Your task to perform on an android device: Add "macbook pro" to the cart on amazon.com, then select checkout. Image 0: 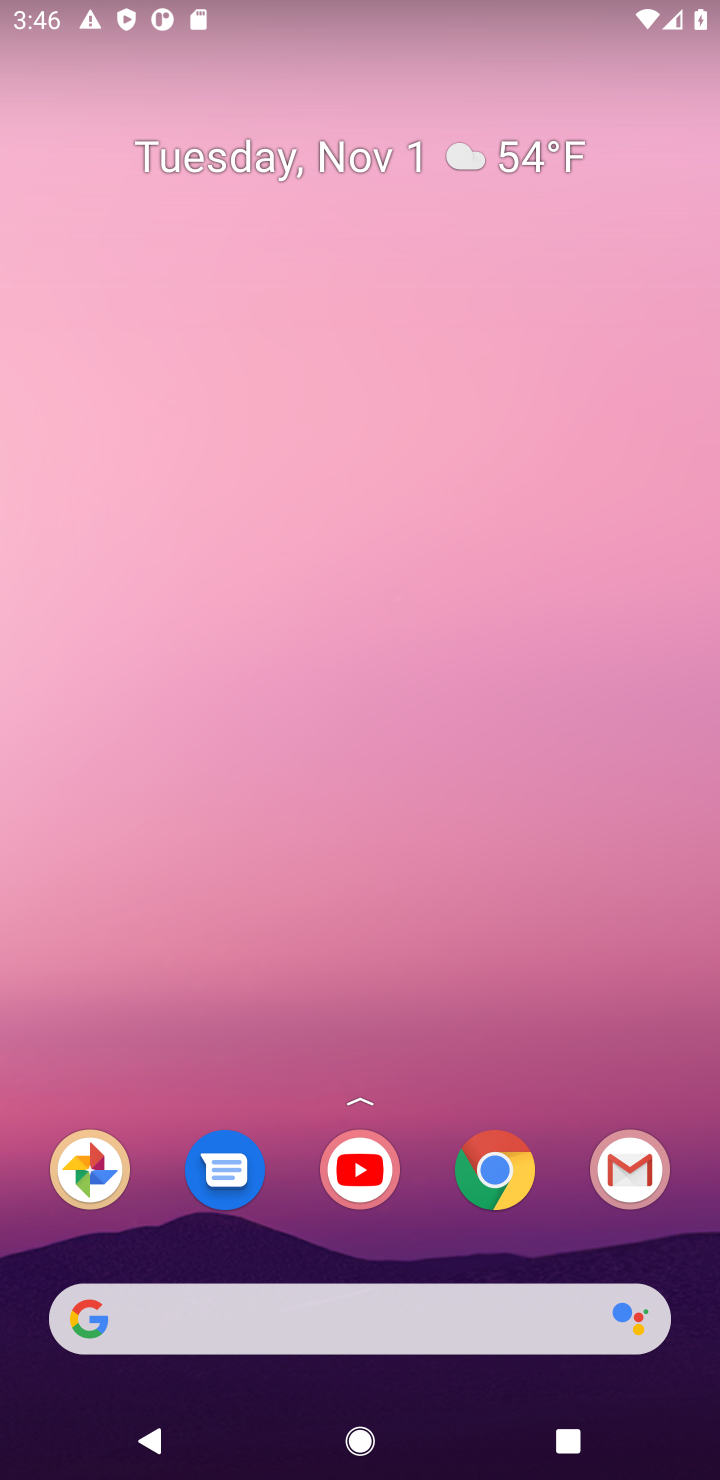
Step 0: drag from (424, 1172) to (303, 111)
Your task to perform on an android device: Add "macbook pro" to the cart on amazon.com, then select checkout. Image 1: 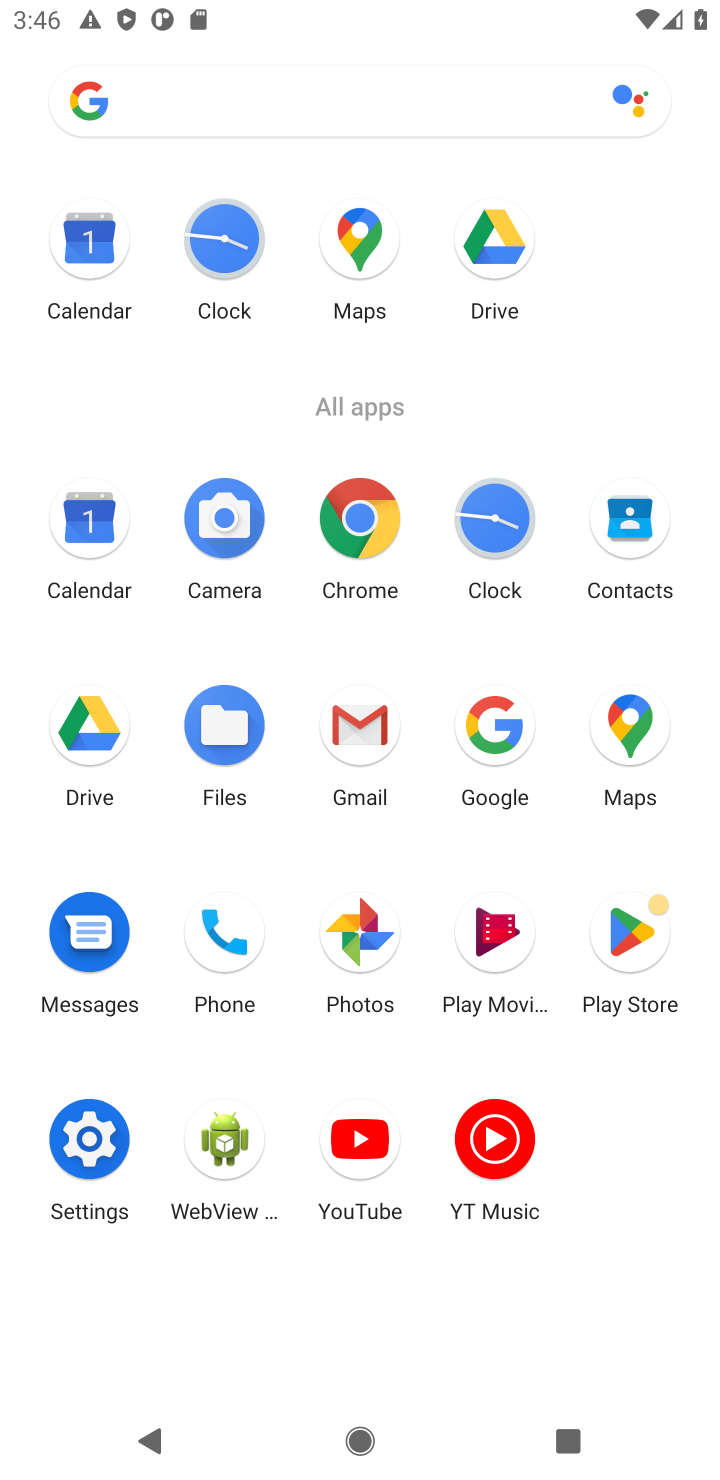
Step 1: click (361, 508)
Your task to perform on an android device: Add "macbook pro" to the cart on amazon.com, then select checkout. Image 2: 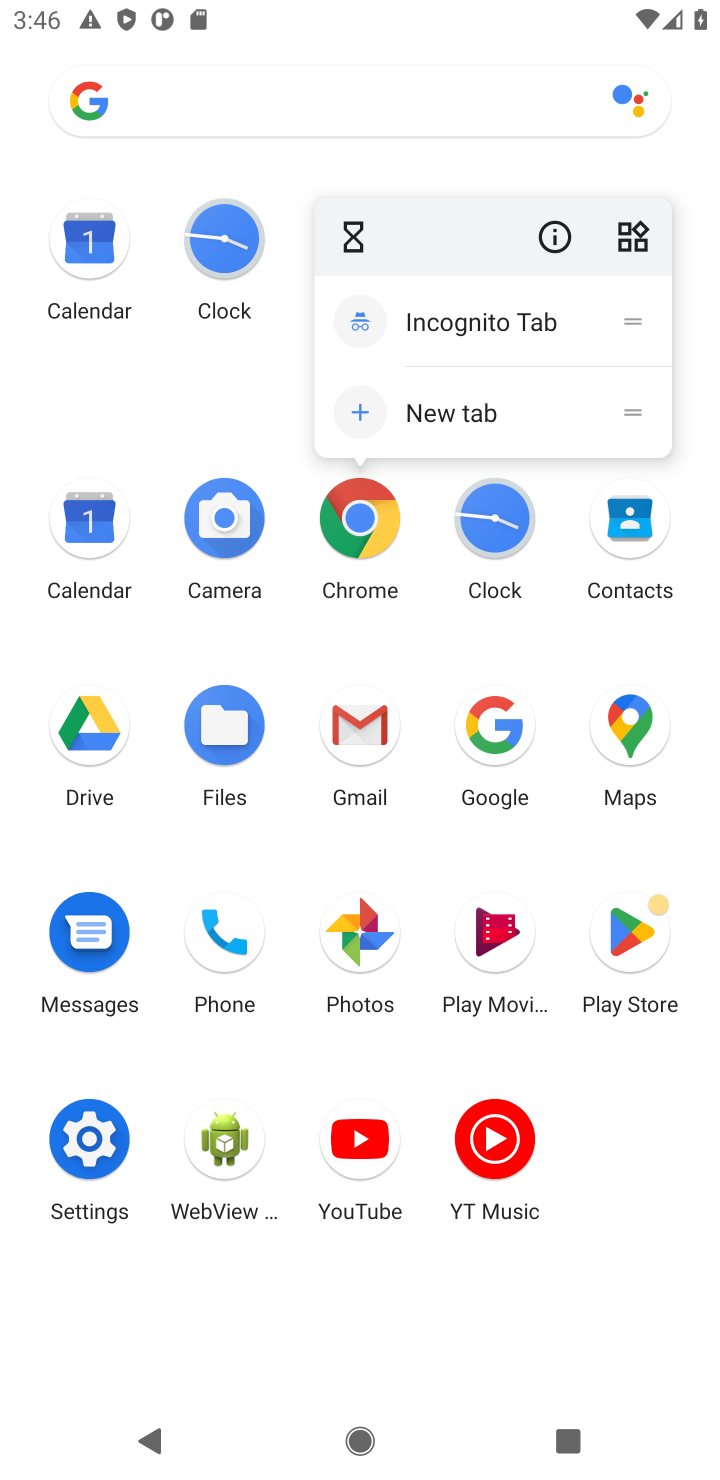
Step 2: click (359, 521)
Your task to perform on an android device: Add "macbook pro" to the cart on amazon.com, then select checkout. Image 3: 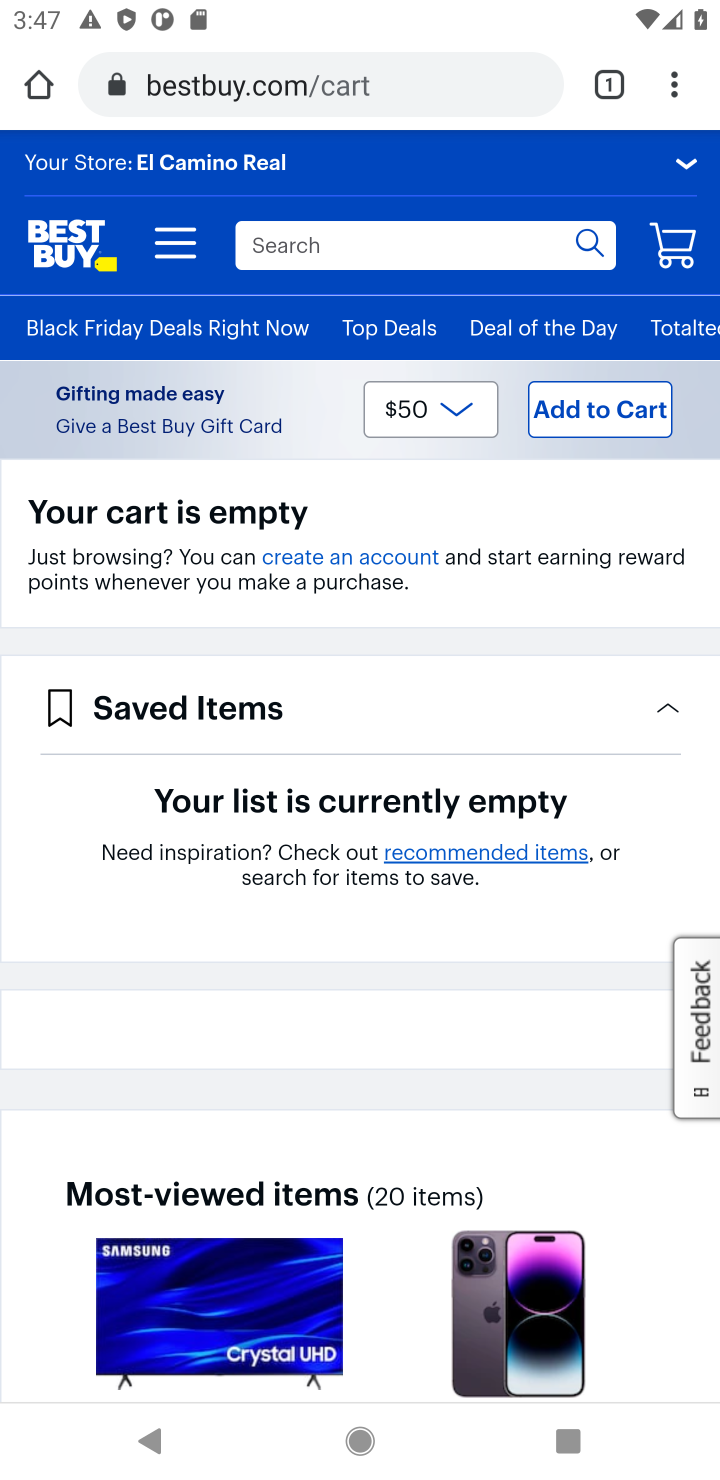
Step 3: click (368, 83)
Your task to perform on an android device: Add "macbook pro" to the cart on amazon.com, then select checkout. Image 4: 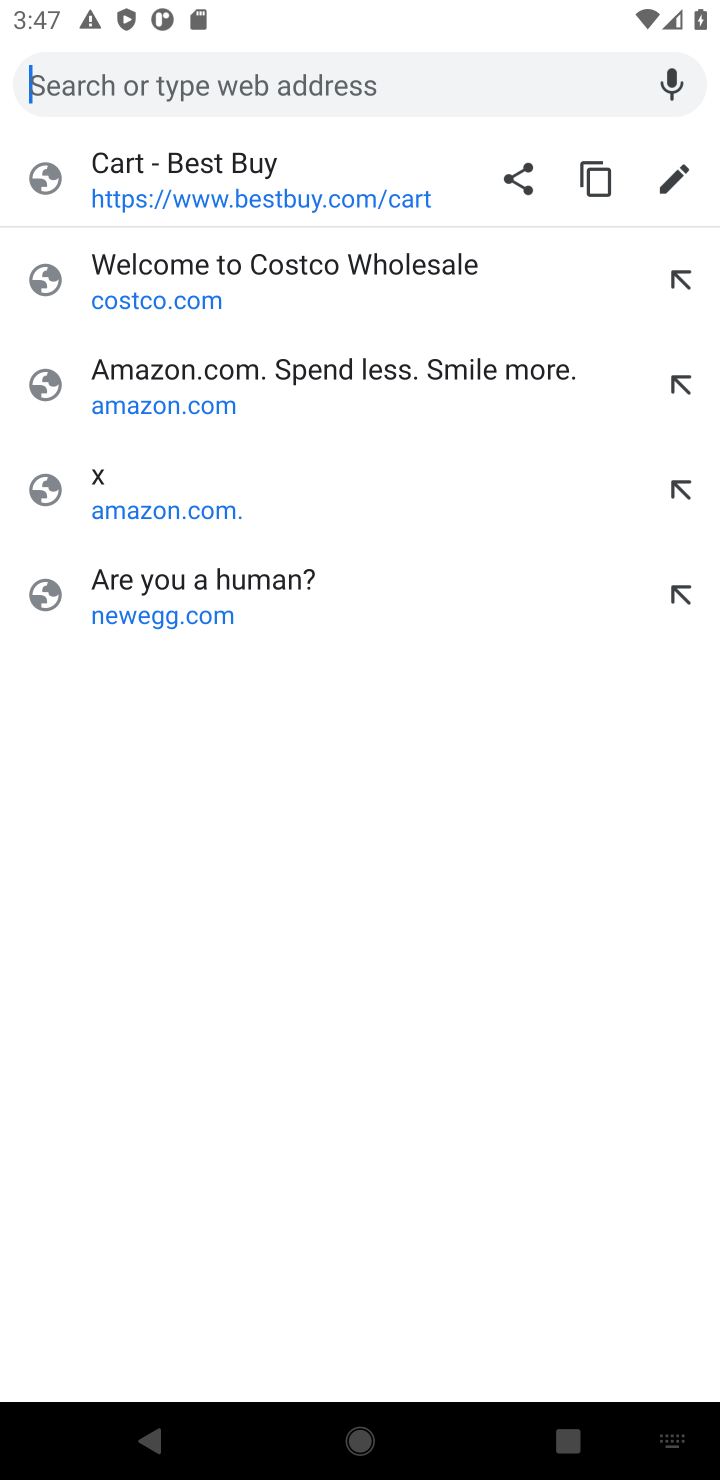
Step 4: type "amazon.com"
Your task to perform on an android device: Add "macbook pro" to the cart on amazon.com, then select checkout. Image 5: 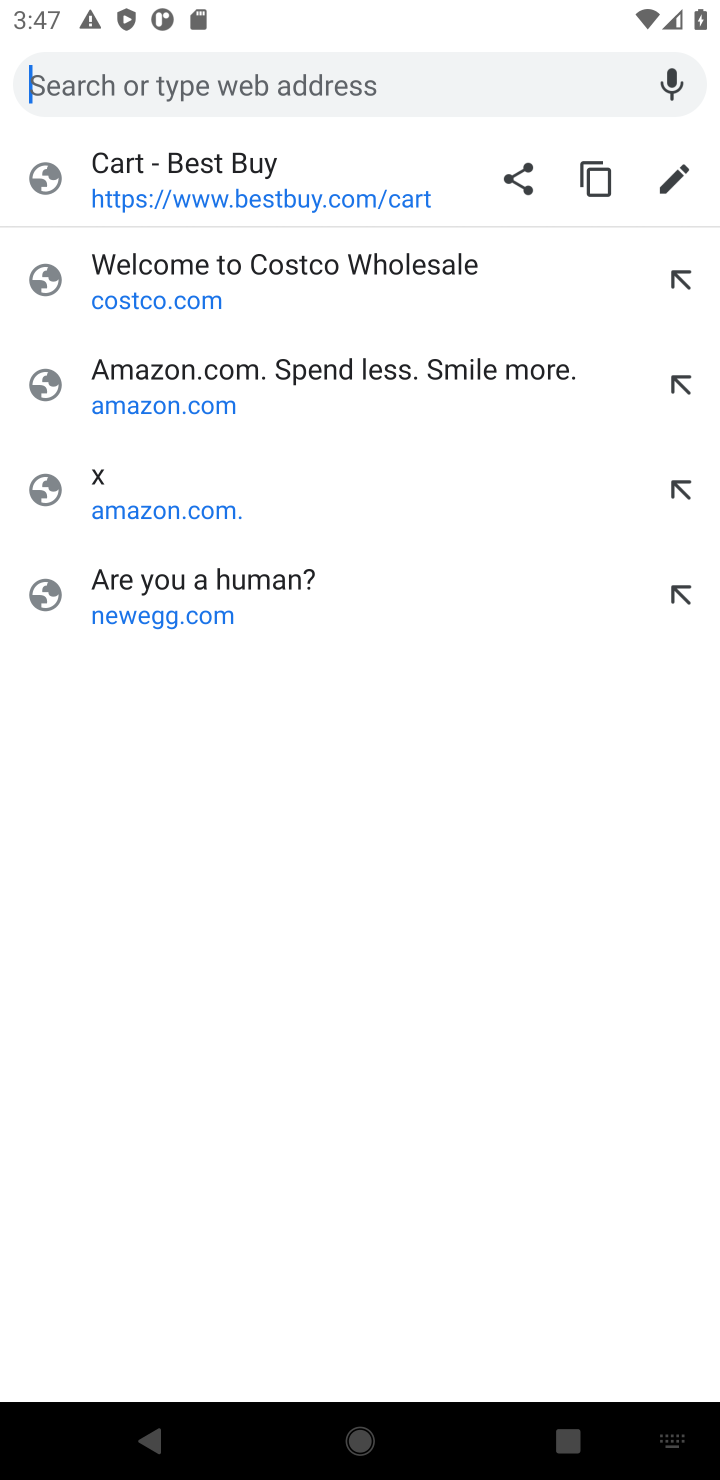
Step 5: click (203, 401)
Your task to perform on an android device: Add "macbook pro" to the cart on amazon.com, then select checkout. Image 6: 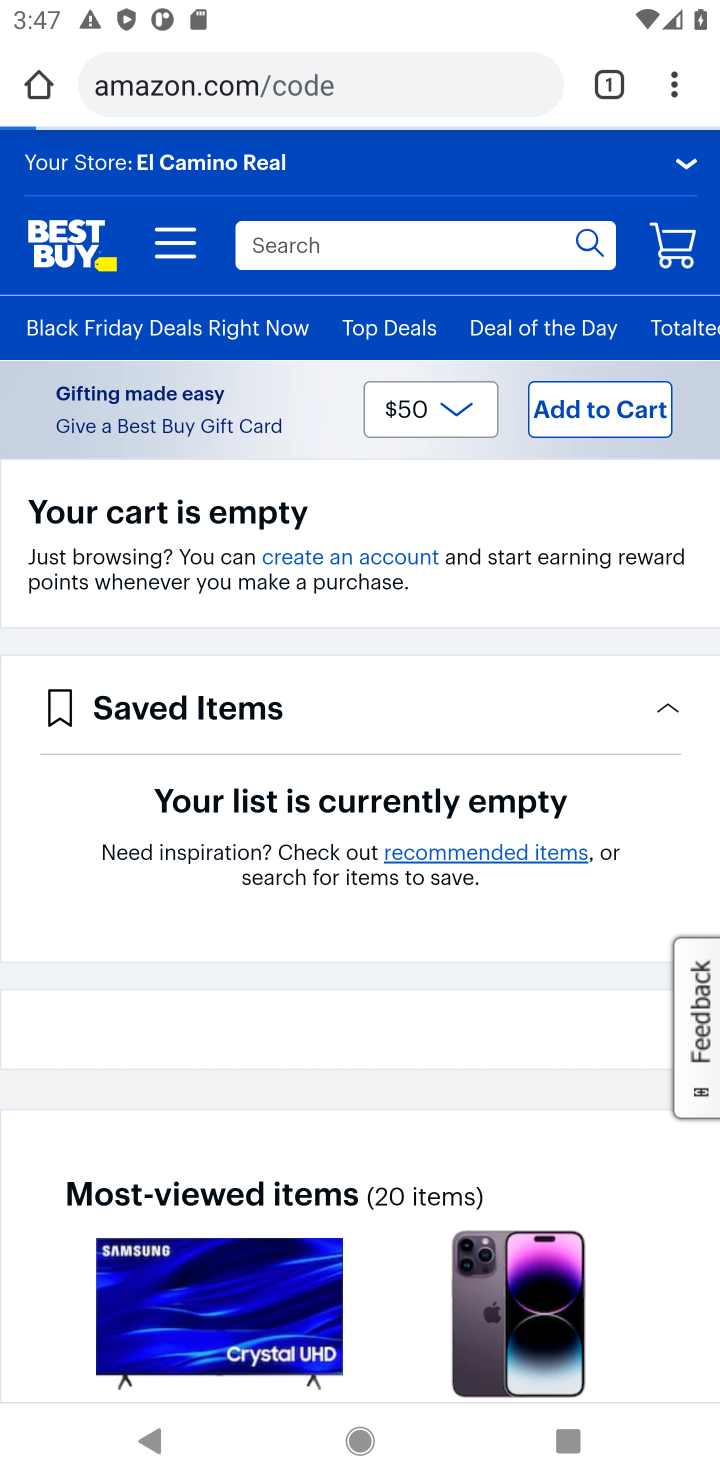
Step 6: click (179, 401)
Your task to perform on an android device: Add "macbook pro" to the cart on amazon.com, then select checkout. Image 7: 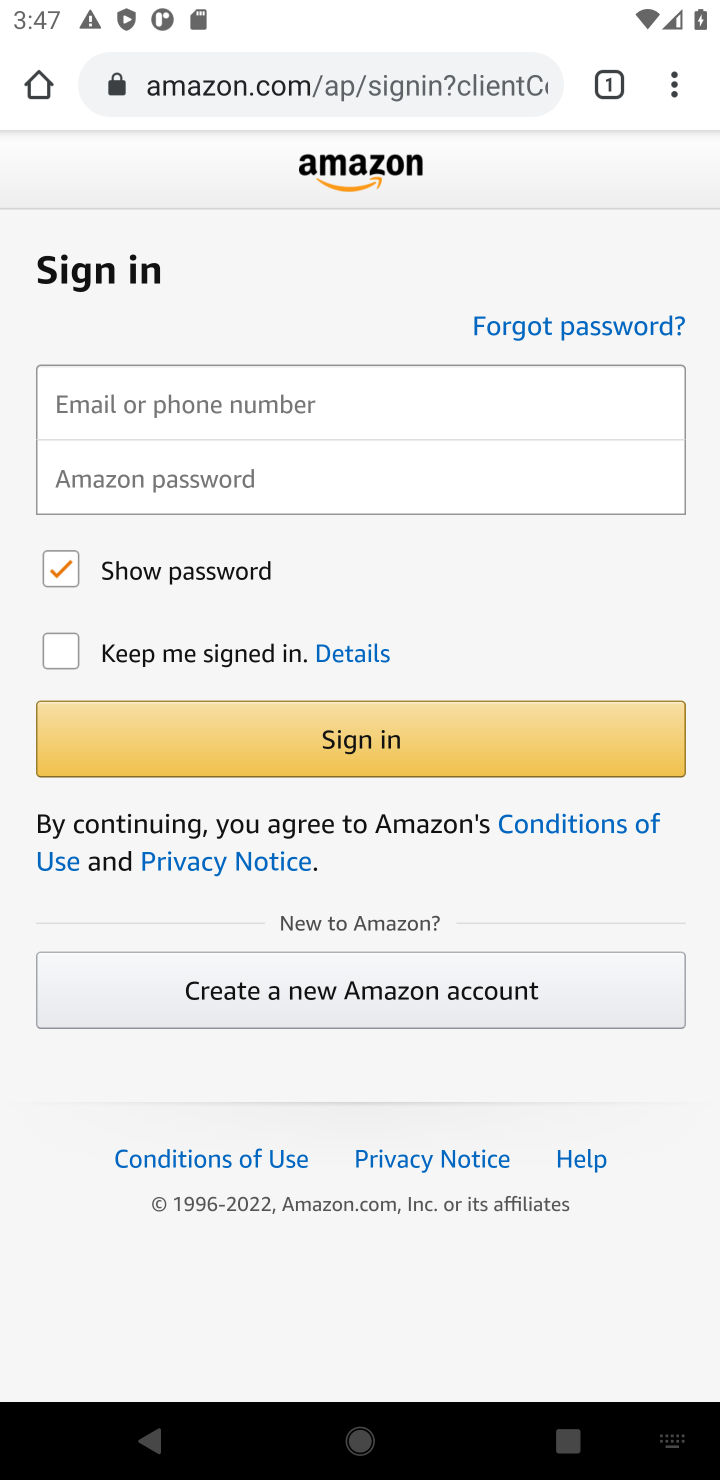
Step 7: task complete